Your task to perform on an android device: Open battery settings Image 0: 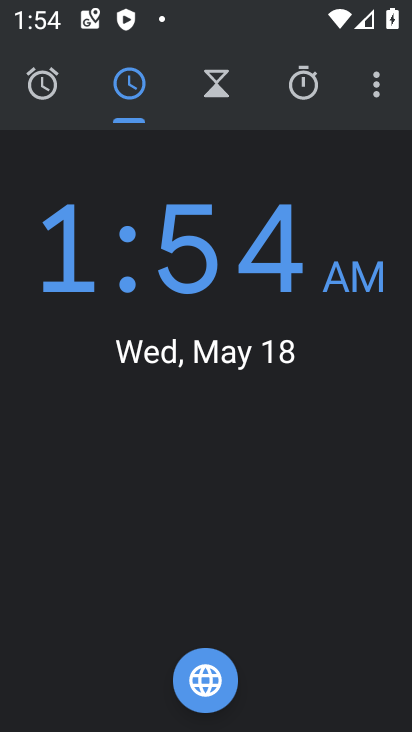
Step 0: press home button
Your task to perform on an android device: Open battery settings Image 1: 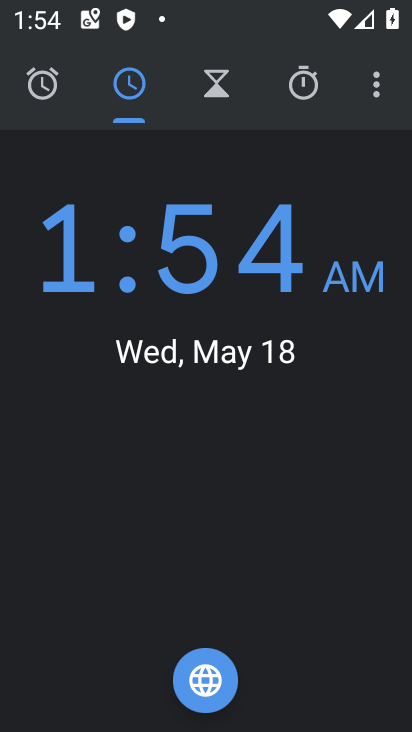
Step 1: press home button
Your task to perform on an android device: Open battery settings Image 2: 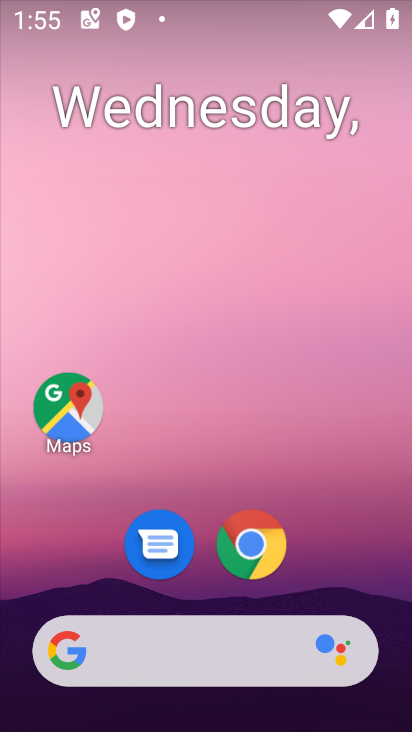
Step 2: drag from (304, 571) to (319, 179)
Your task to perform on an android device: Open battery settings Image 3: 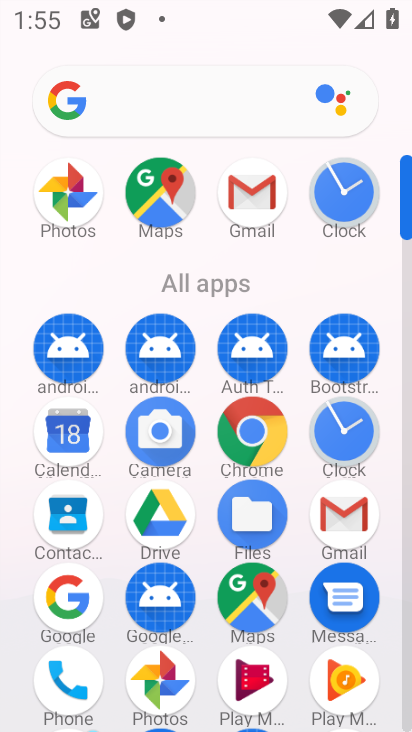
Step 3: click (407, 692)
Your task to perform on an android device: Open battery settings Image 4: 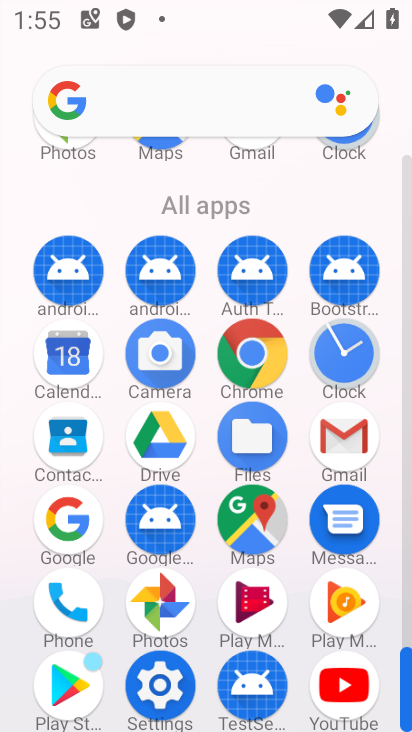
Step 4: click (171, 692)
Your task to perform on an android device: Open battery settings Image 5: 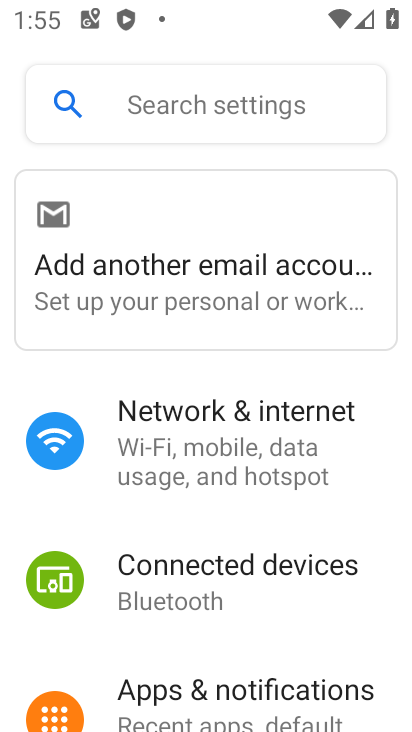
Step 5: drag from (149, 629) to (248, 400)
Your task to perform on an android device: Open battery settings Image 6: 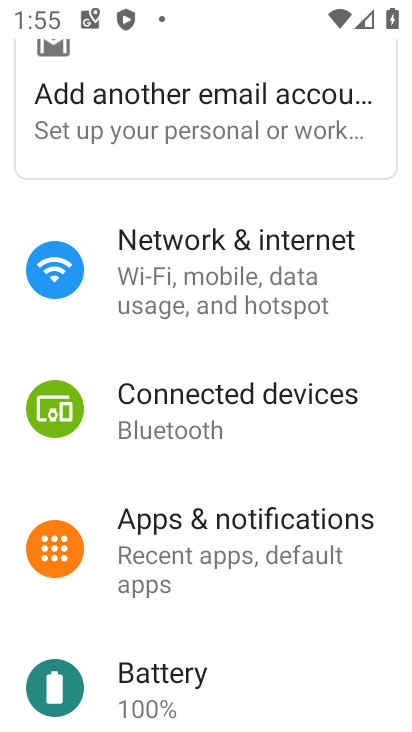
Step 6: click (182, 656)
Your task to perform on an android device: Open battery settings Image 7: 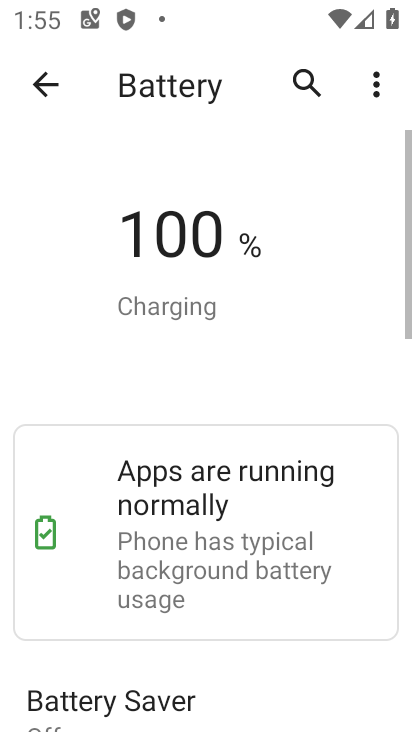
Step 7: task complete